Your task to perform on an android device: Open settings Image 0: 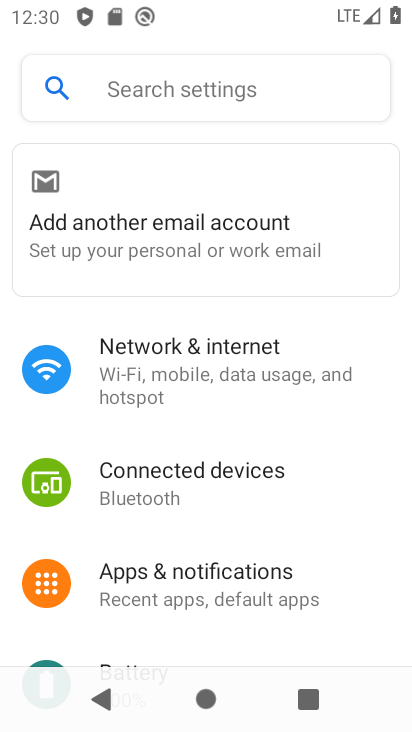
Step 0: drag from (224, 595) to (271, 227)
Your task to perform on an android device: Open settings Image 1: 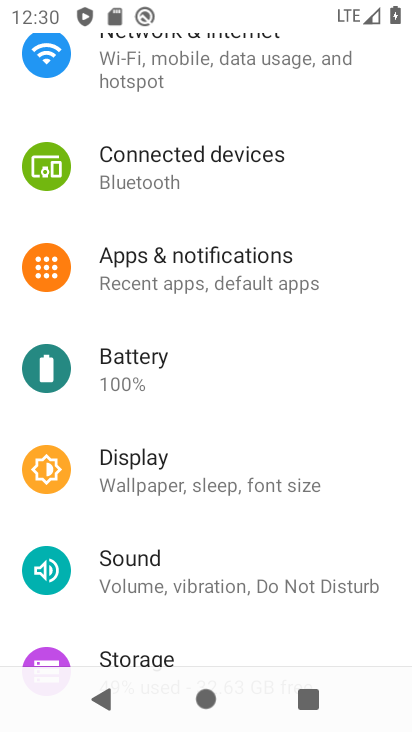
Step 1: task complete